Your task to perform on an android device: Search for vegetarian restaurants on Maps Image 0: 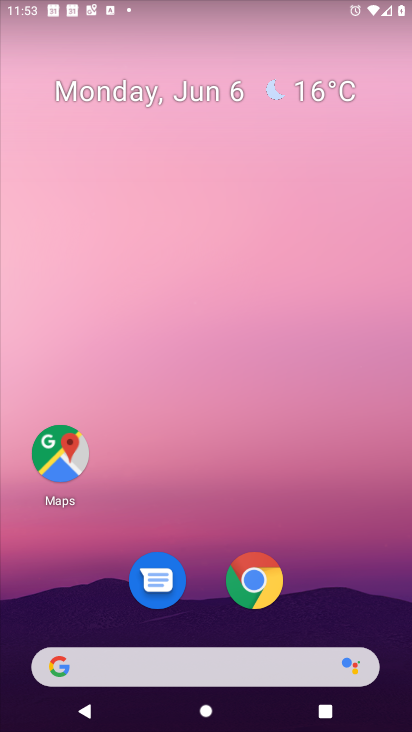
Step 0: drag from (354, 573) to (395, 2)
Your task to perform on an android device: Search for vegetarian restaurants on Maps Image 1: 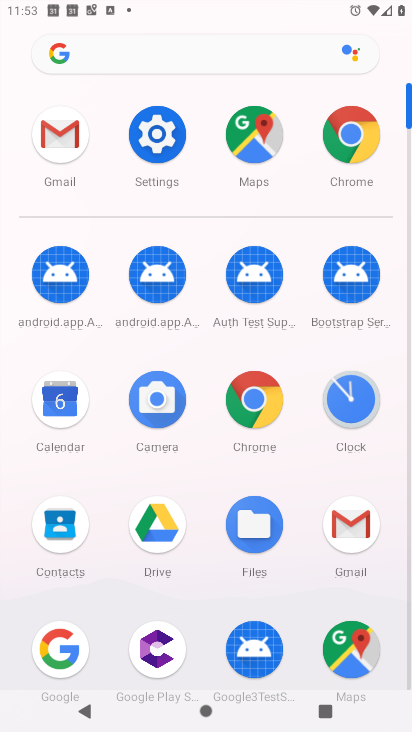
Step 1: click (264, 140)
Your task to perform on an android device: Search for vegetarian restaurants on Maps Image 2: 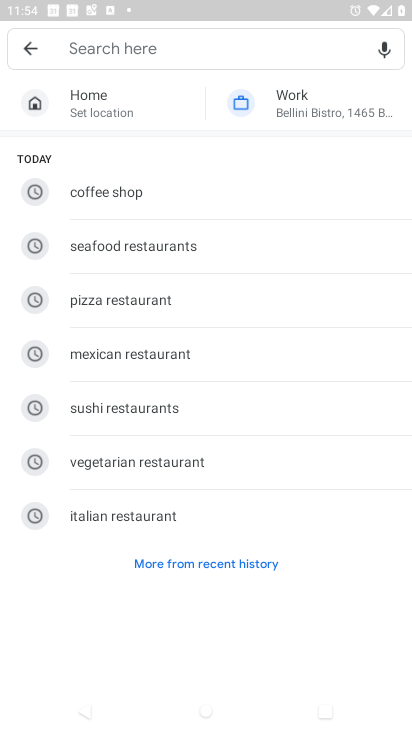
Step 2: click (166, 58)
Your task to perform on an android device: Search for vegetarian restaurants on Maps Image 3: 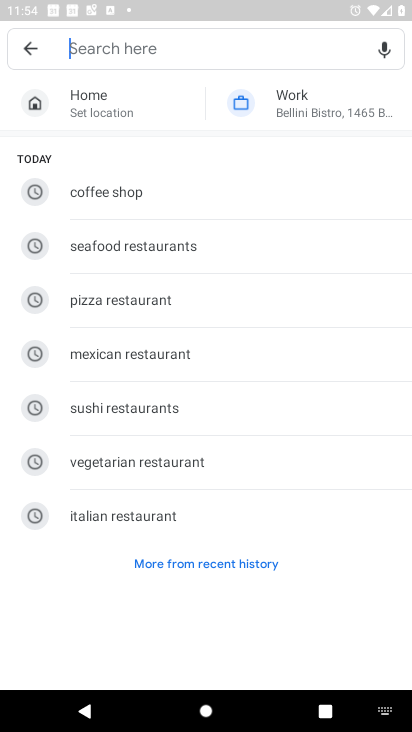
Step 3: click (171, 455)
Your task to perform on an android device: Search for vegetarian restaurants on Maps Image 4: 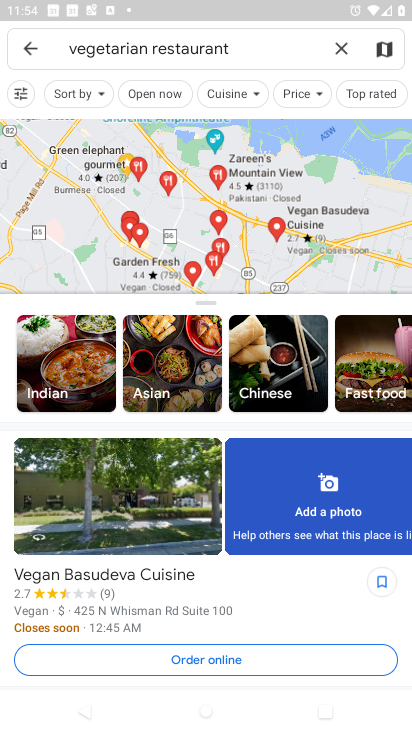
Step 4: task complete